Your task to perform on an android device: add a contact Image 0: 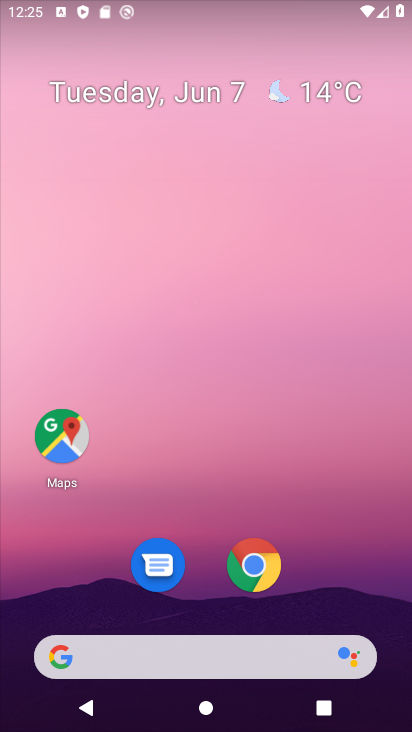
Step 0: drag from (276, 600) to (282, 91)
Your task to perform on an android device: add a contact Image 1: 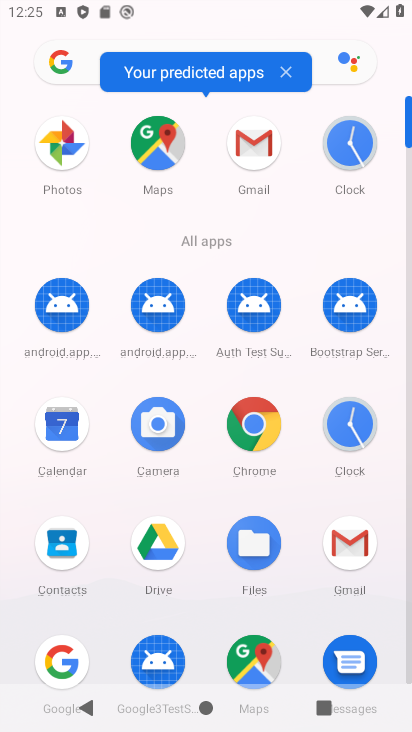
Step 1: click (57, 546)
Your task to perform on an android device: add a contact Image 2: 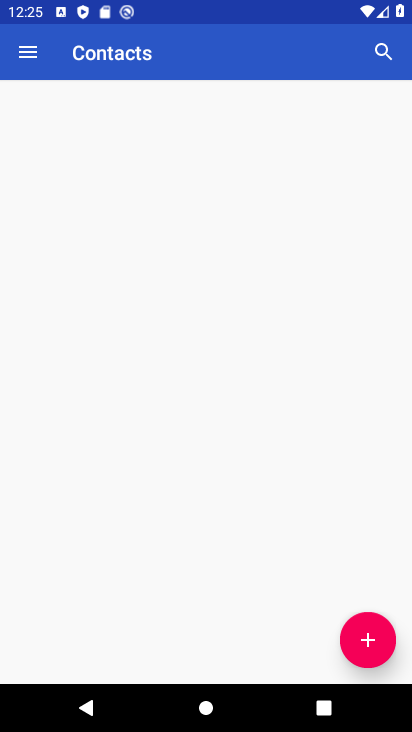
Step 2: click (367, 653)
Your task to perform on an android device: add a contact Image 3: 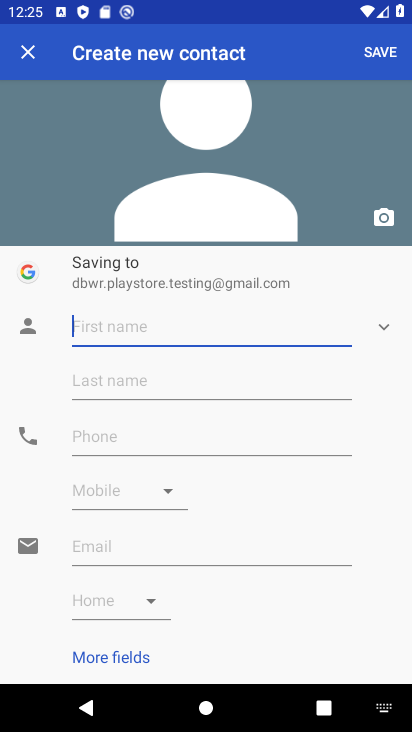
Step 3: type "yujfjgj"
Your task to perform on an android device: add a contact Image 4: 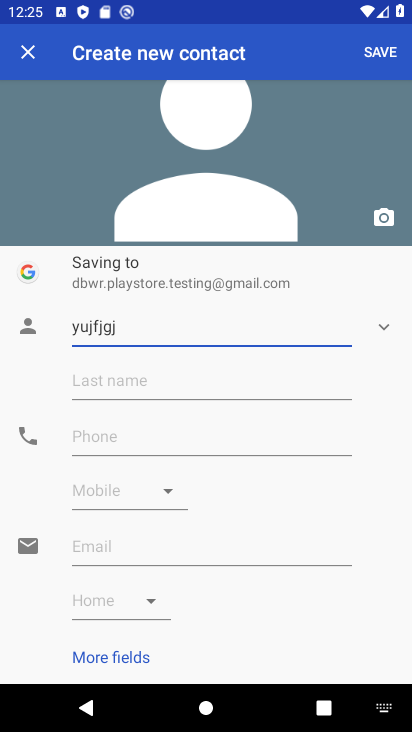
Step 4: click (165, 450)
Your task to perform on an android device: add a contact Image 5: 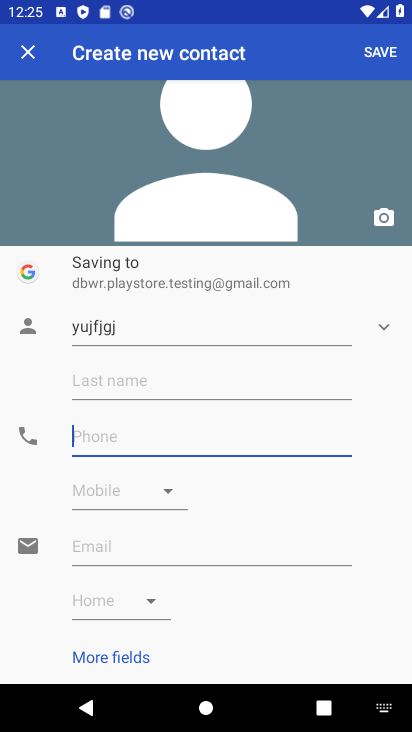
Step 5: type "97755789987"
Your task to perform on an android device: add a contact Image 6: 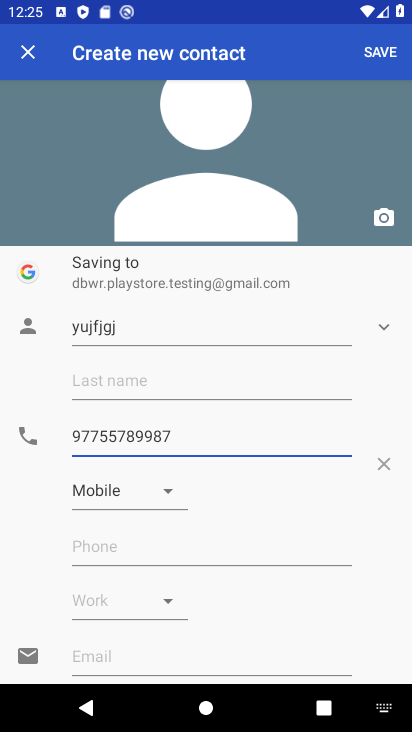
Step 6: click (401, 54)
Your task to perform on an android device: add a contact Image 7: 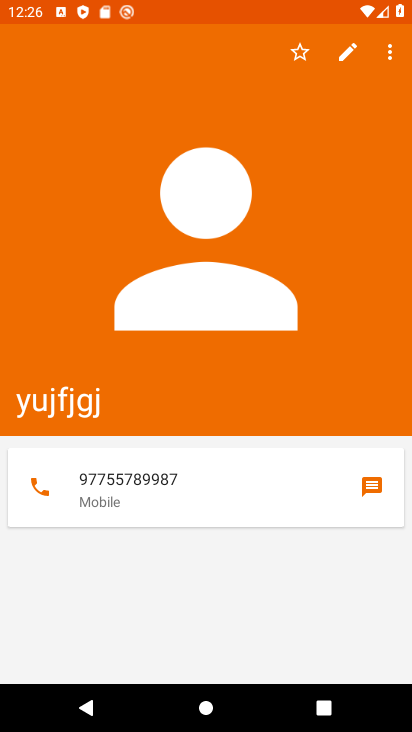
Step 7: task complete